Your task to perform on an android device: turn off priority inbox in the gmail app Image 0: 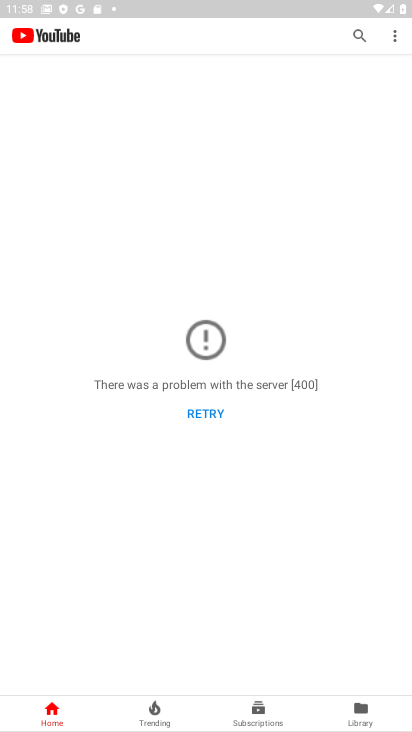
Step 0: drag from (141, 587) to (397, 86)
Your task to perform on an android device: turn off priority inbox in the gmail app Image 1: 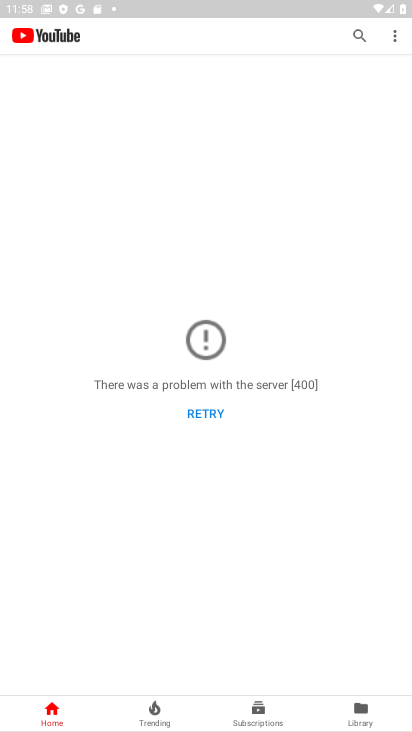
Step 1: press home button
Your task to perform on an android device: turn off priority inbox in the gmail app Image 2: 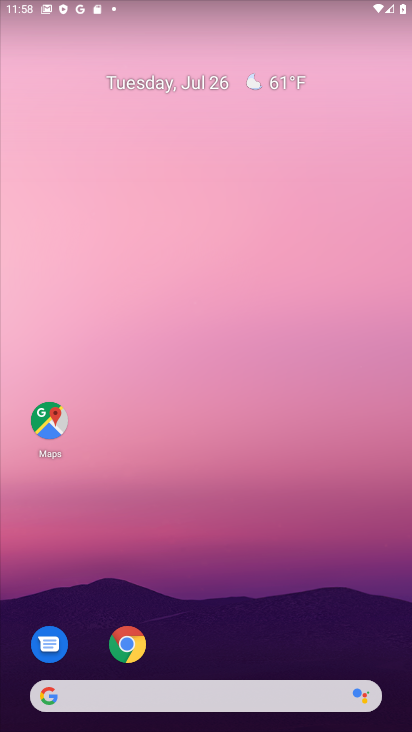
Step 2: drag from (204, 658) to (230, 11)
Your task to perform on an android device: turn off priority inbox in the gmail app Image 3: 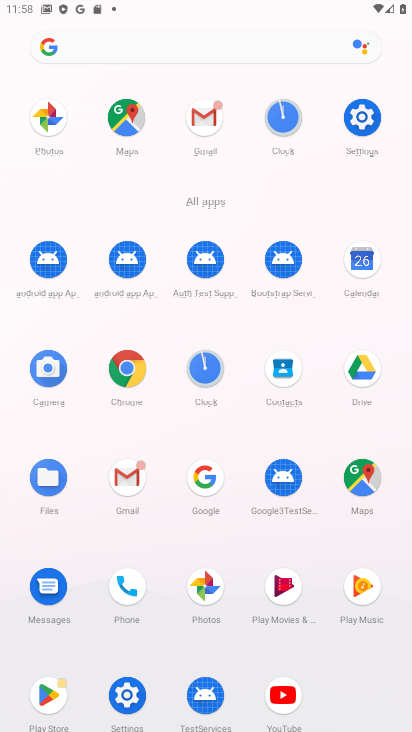
Step 3: click (128, 478)
Your task to perform on an android device: turn off priority inbox in the gmail app Image 4: 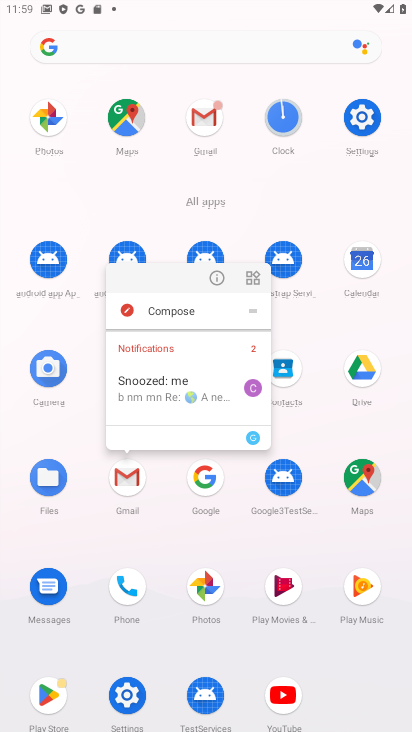
Step 4: click (210, 271)
Your task to perform on an android device: turn off priority inbox in the gmail app Image 5: 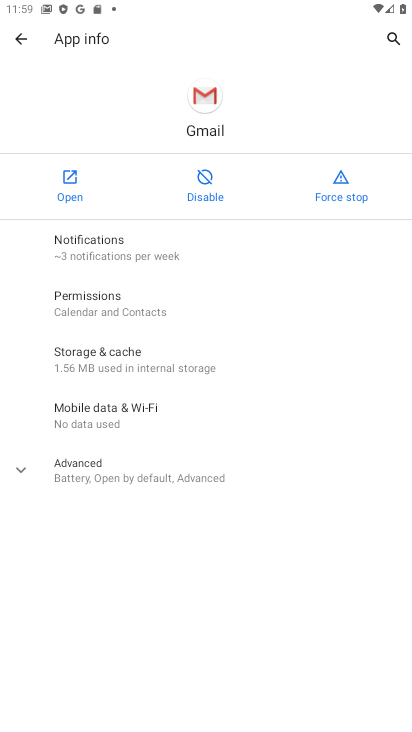
Step 5: click (55, 187)
Your task to perform on an android device: turn off priority inbox in the gmail app Image 6: 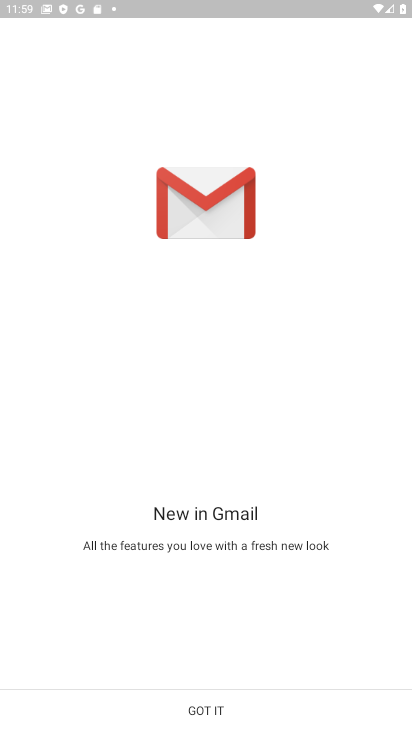
Step 6: click (221, 709)
Your task to perform on an android device: turn off priority inbox in the gmail app Image 7: 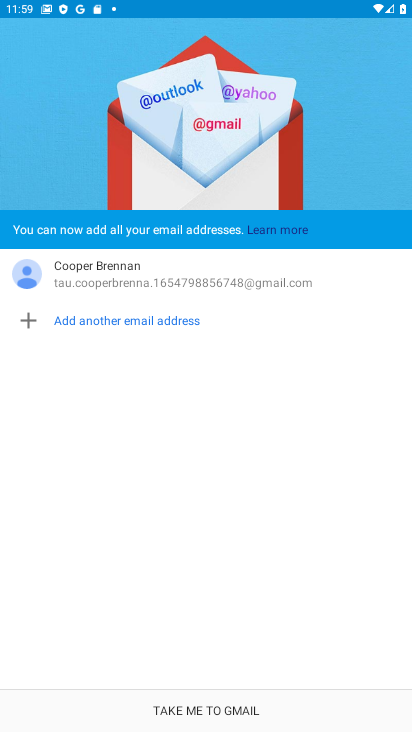
Step 7: click (216, 694)
Your task to perform on an android device: turn off priority inbox in the gmail app Image 8: 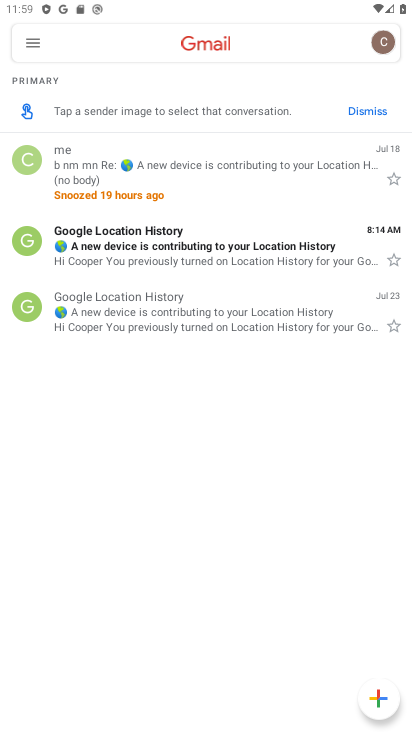
Step 8: click (30, 46)
Your task to perform on an android device: turn off priority inbox in the gmail app Image 9: 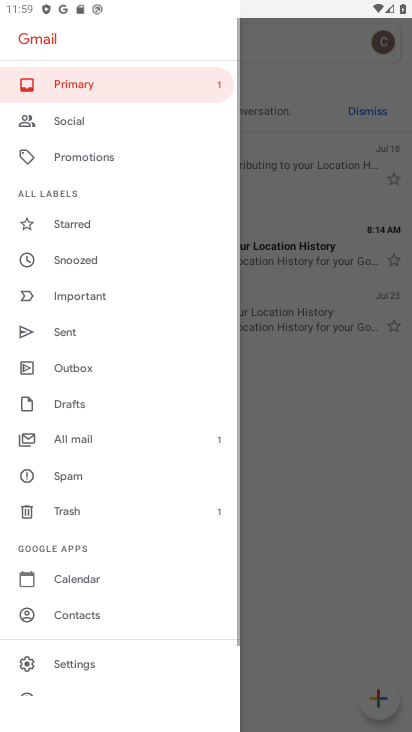
Step 9: click (70, 662)
Your task to perform on an android device: turn off priority inbox in the gmail app Image 10: 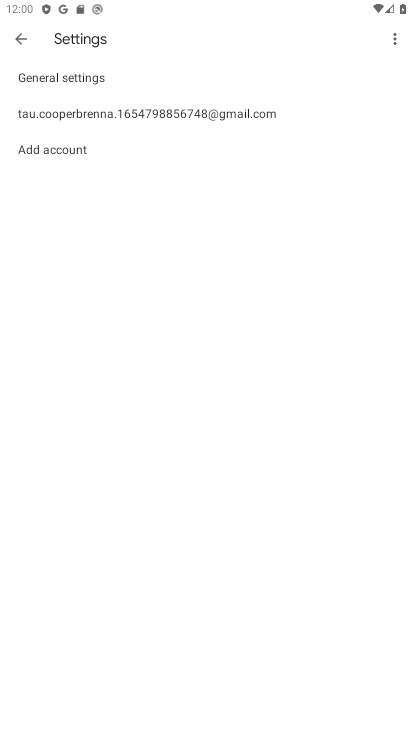
Step 10: click (103, 115)
Your task to perform on an android device: turn off priority inbox in the gmail app Image 11: 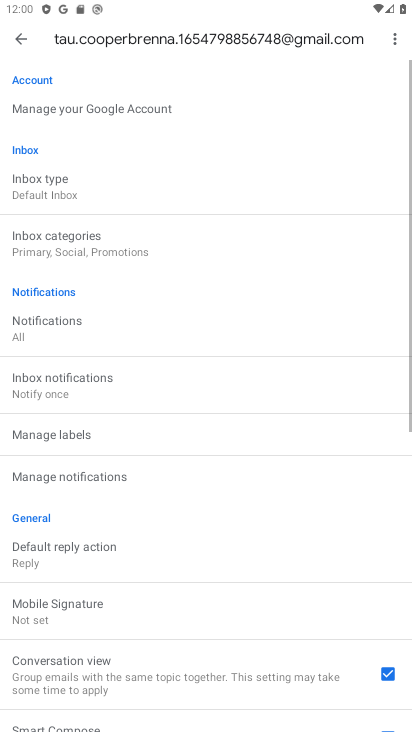
Step 11: click (94, 196)
Your task to perform on an android device: turn off priority inbox in the gmail app Image 12: 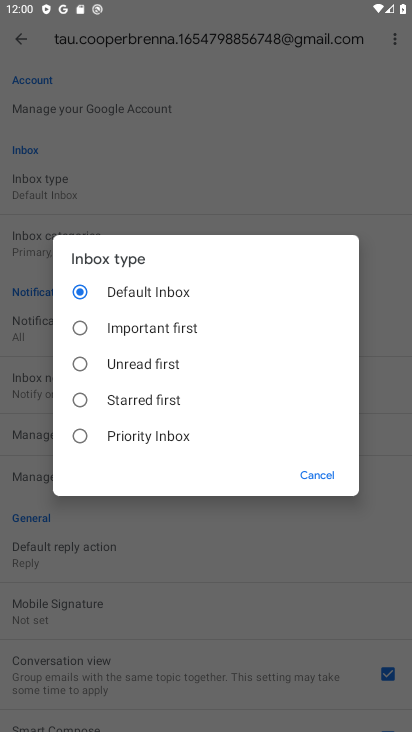
Step 12: click (91, 437)
Your task to perform on an android device: turn off priority inbox in the gmail app Image 13: 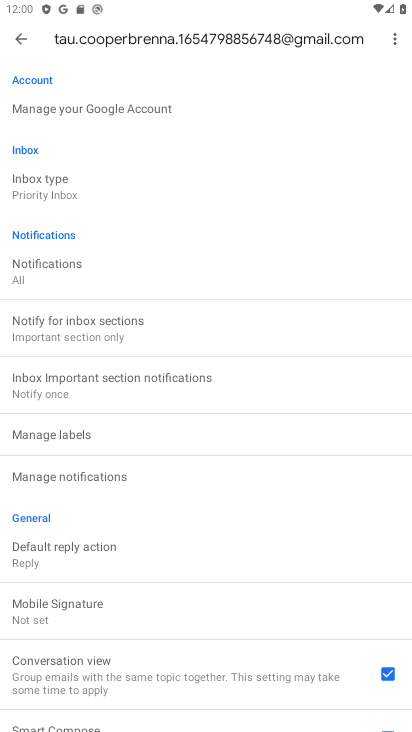
Step 13: click (69, 178)
Your task to perform on an android device: turn off priority inbox in the gmail app Image 14: 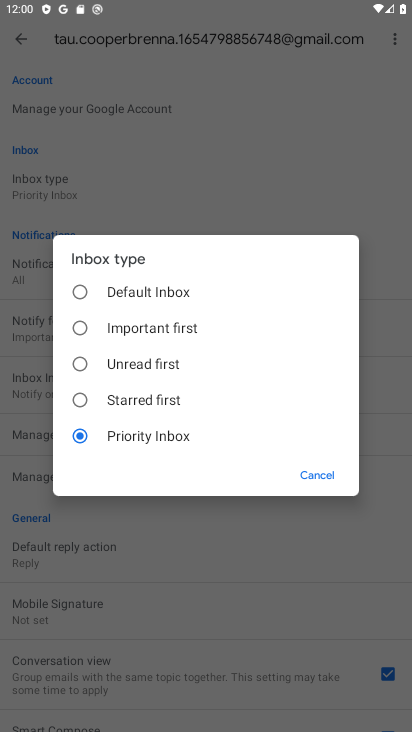
Step 14: click (104, 295)
Your task to perform on an android device: turn off priority inbox in the gmail app Image 15: 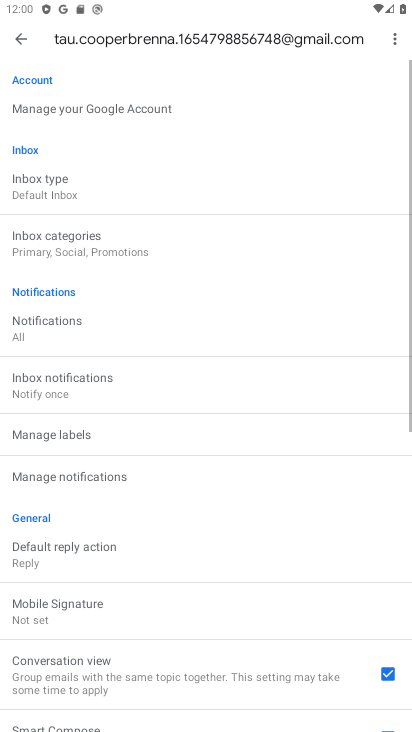
Step 15: task complete